Your task to perform on an android device: turn off location history Image 0: 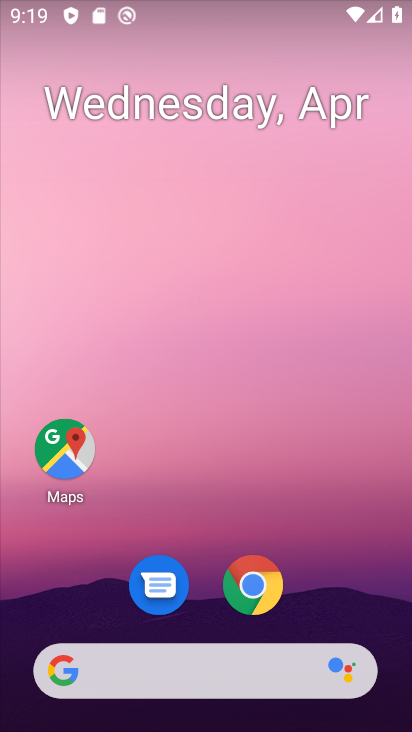
Step 0: drag from (303, 480) to (336, 140)
Your task to perform on an android device: turn off location history Image 1: 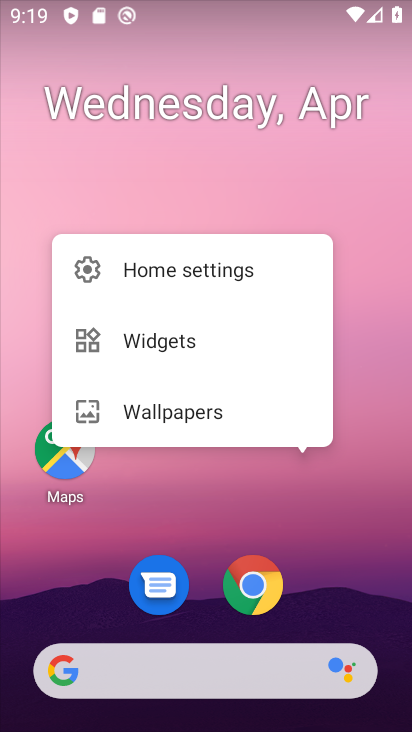
Step 1: drag from (340, 523) to (356, 157)
Your task to perform on an android device: turn off location history Image 2: 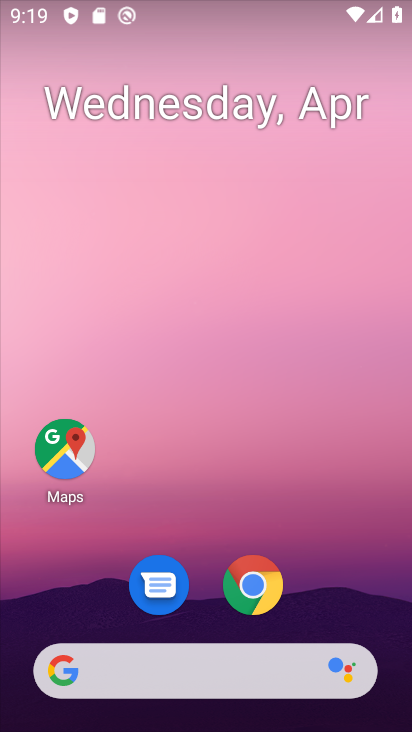
Step 2: drag from (308, 536) to (329, 72)
Your task to perform on an android device: turn off location history Image 3: 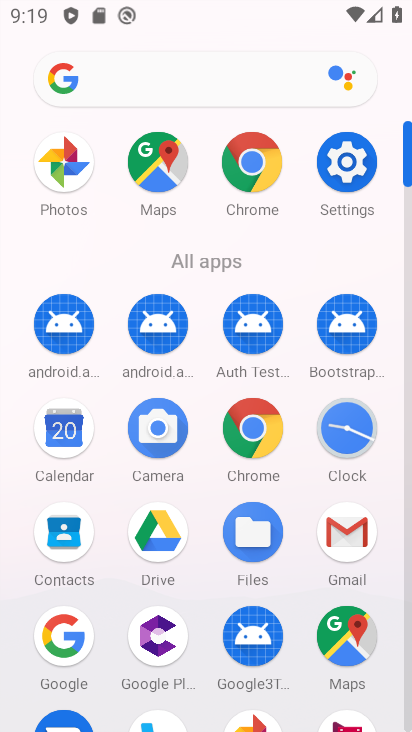
Step 3: click (348, 171)
Your task to perform on an android device: turn off location history Image 4: 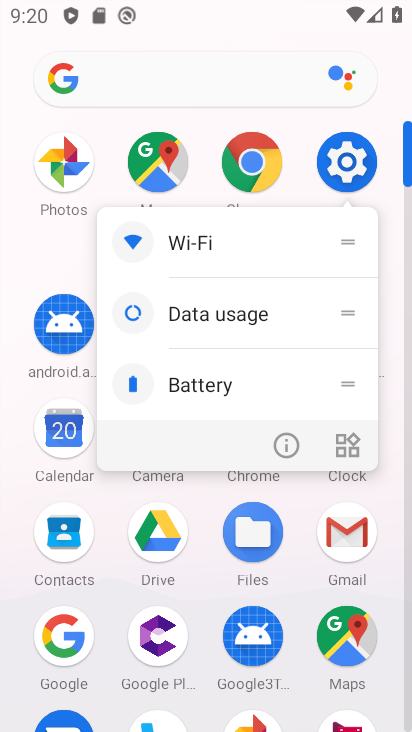
Step 4: click (348, 155)
Your task to perform on an android device: turn off location history Image 5: 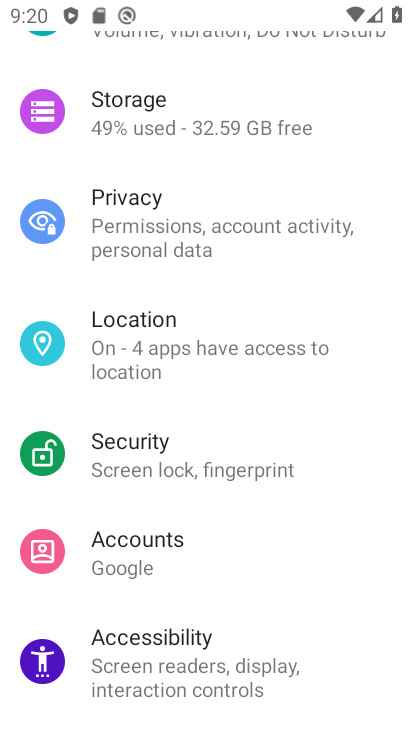
Step 5: click (251, 341)
Your task to perform on an android device: turn off location history Image 6: 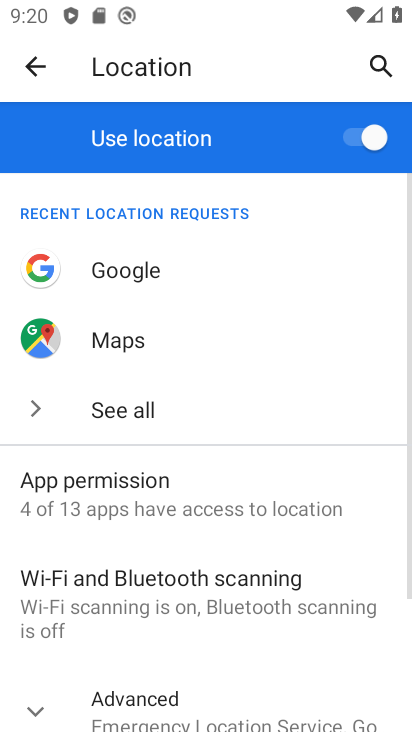
Step 6: click (33, 704)
Your task to perform on an android device: turn off location history Image 7: 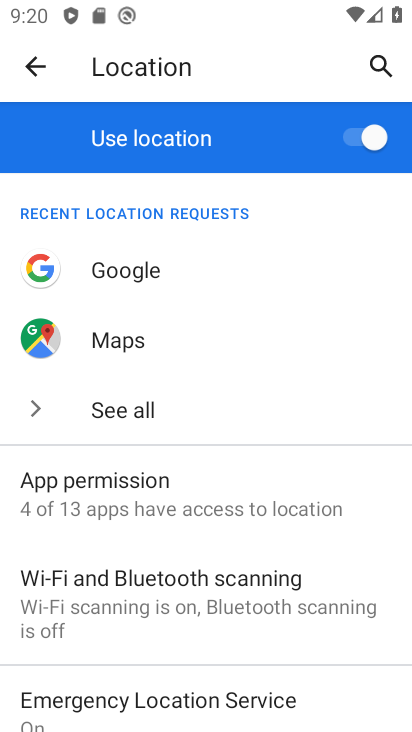
Step 7: task complete